Your task to perform on an android device: turn off translation in the chrome app Image 0: 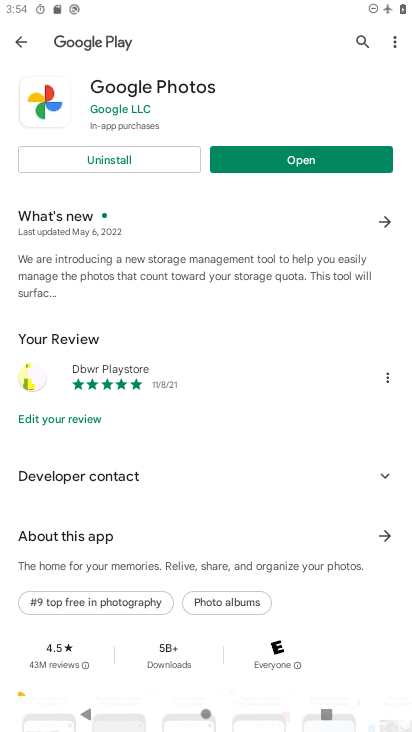
Step 0: press home button
Your task to perform on an android device: turn off translation in the chrome app Image 1: 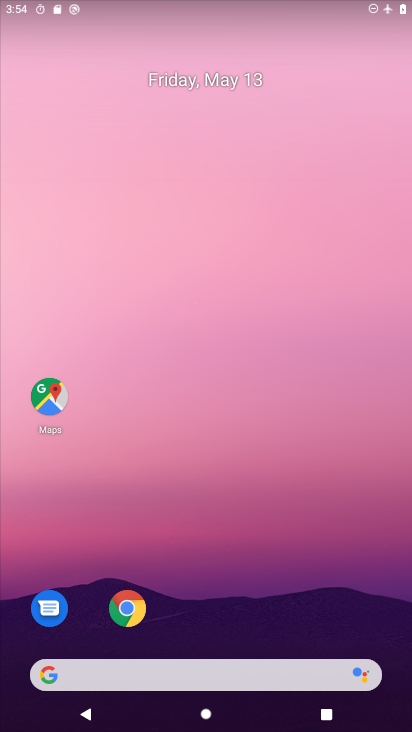
Step 1: drag from (227, 582) to (199, 50)
Your task to perform on an android device: turn off translation in the chrome app Image 2: 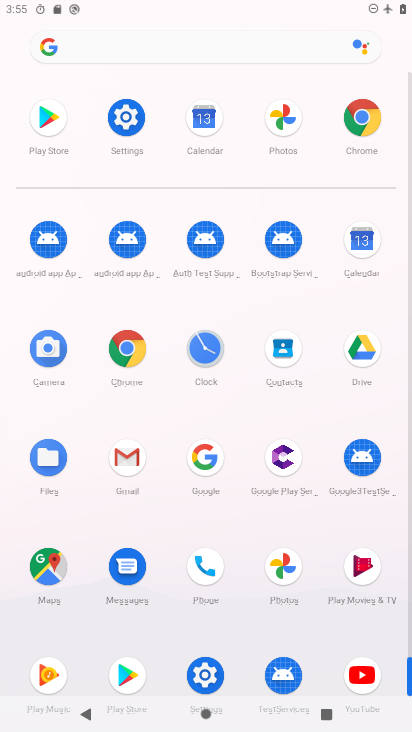
Step 2: click (370, 114)
Your task to perform on an android device: turn off translation in the chrome app Image 3: 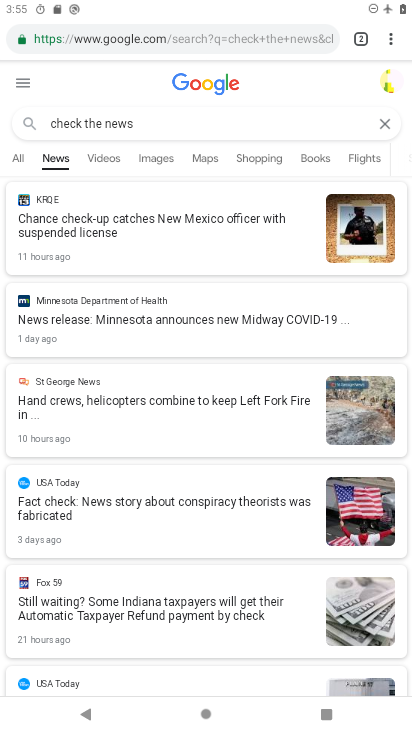
Step 3: drag from (337, 8) to (331, 450)
Your task to perform on an android device: turn off translation in the chrome app Image 4: 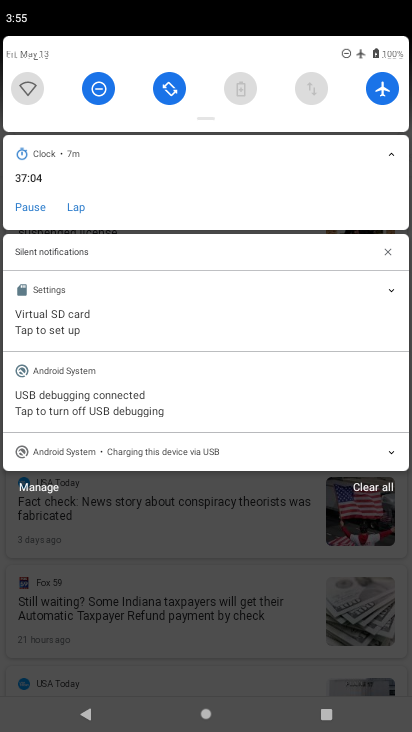
Step 4: click (381, 94)
Your task to perform on an android device: turn off translation in the chrome app Image 5: 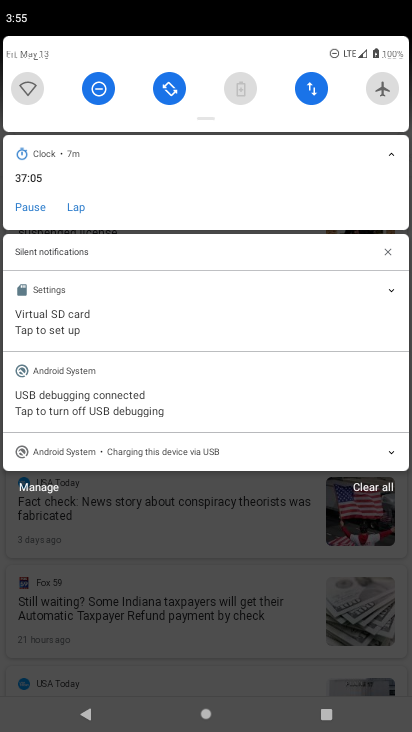
Step 5: drag from (370, 521) to (333, 92)
Your task to perform on an android device: turn off translation in the chrome app Image 6: 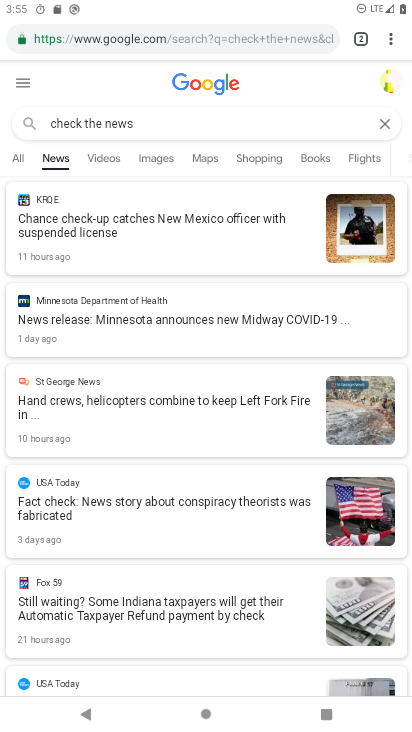
Step 6: drag from (389, 30) to (284, 421)
Your task to perform on an android device: turn off translation in the chrome app Image 7: 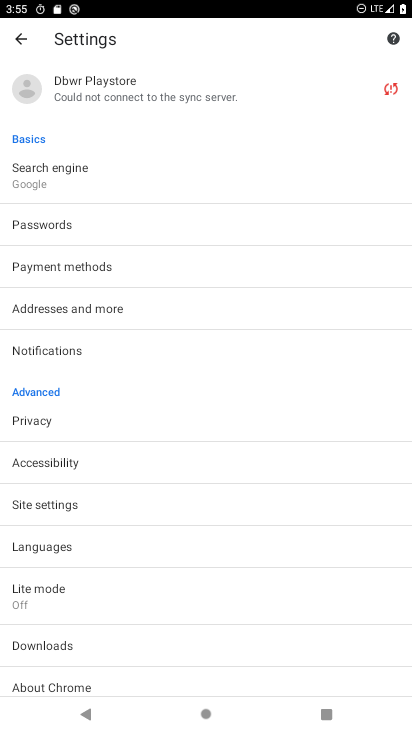
Step 7: click (72, 542)
Your task to perform on an android device: turn off translation in the chrome app Image 8: 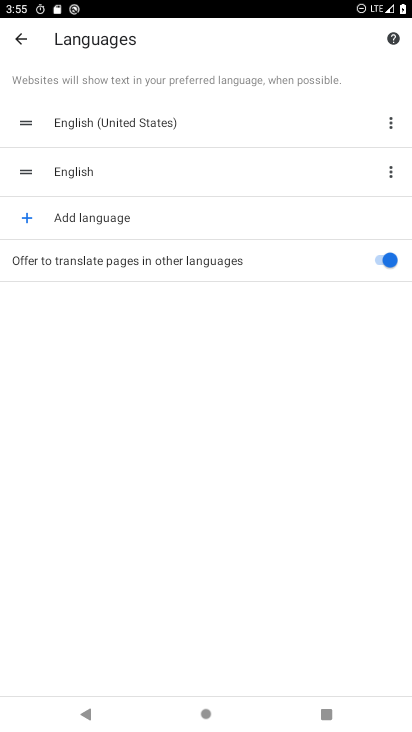
Step 8: click (389, 261)
Your task to perform on an android device: turn off translation in the chrome app Image 9: 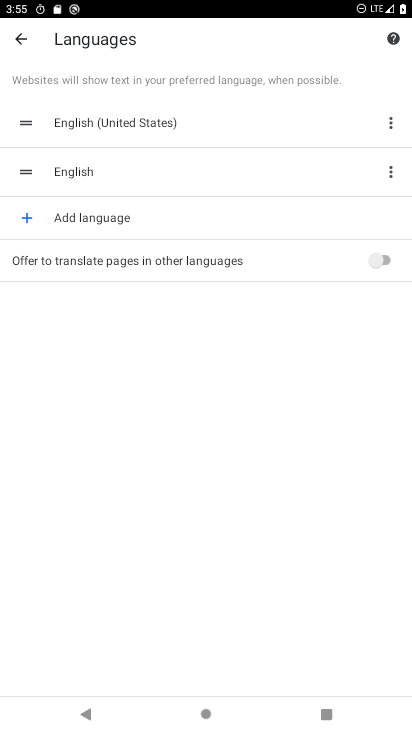
Step 9: task complete